Your task to perform on an android device: Open Amazon Image 0: 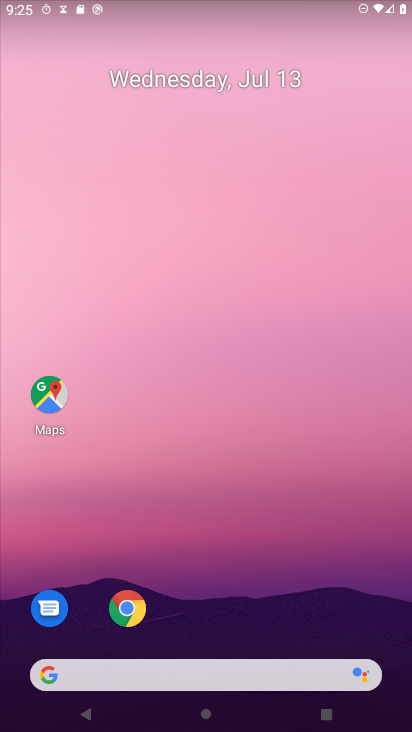
Step 0: drag from (269, 674) to (195, 347)
Your task to perform on an android device: Open Amazon Image 1: 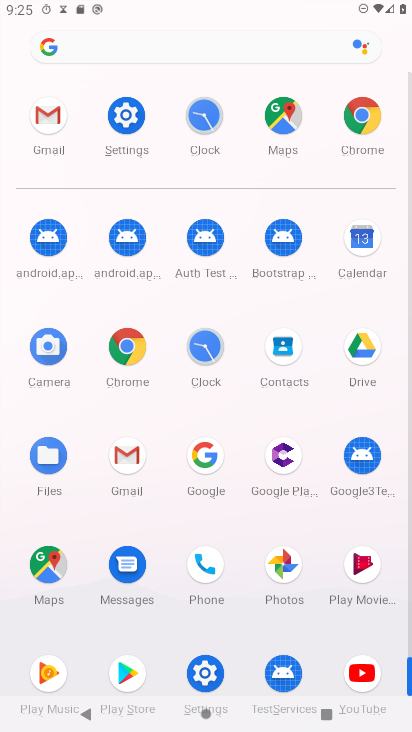
Step 1: click (354, 118)
Your task to perform on an android device: Open Amazon Image 2: 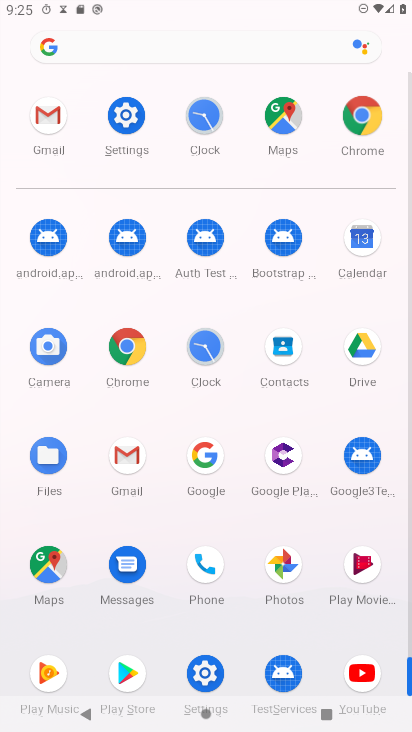
Step 2: click (357, 116)
Your task to perform on an android device: Open Amazon Image 3: 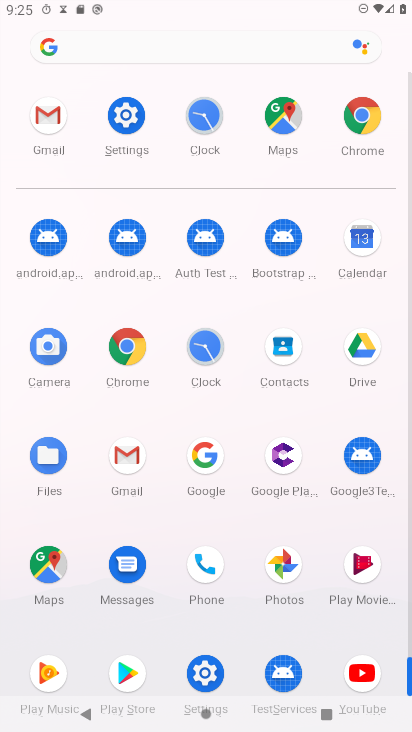
Step 3: click (357, 116)
Your task to perform on an android device: Open Amazon Image 4: 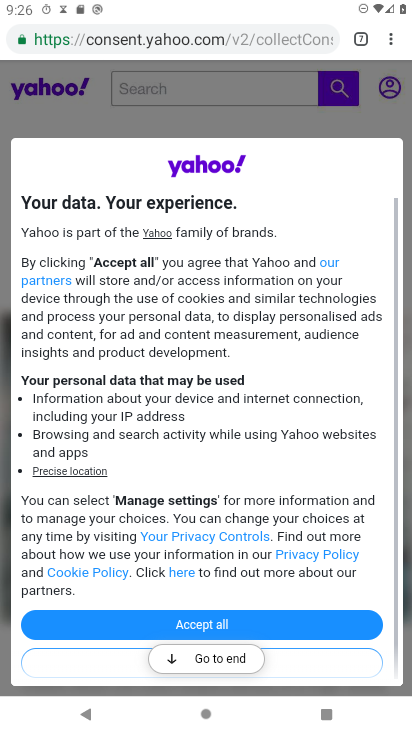
Step 4: drag from (389, 35) to (247, 474)
Your task to perform on an android device: Open Amazon Image 5: 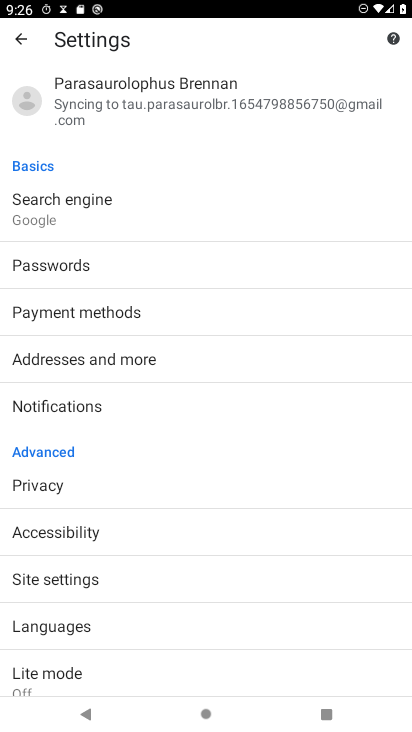
Step 5: click (17, 36)
Your task to perform on an android device: Open Amazon Image 6: 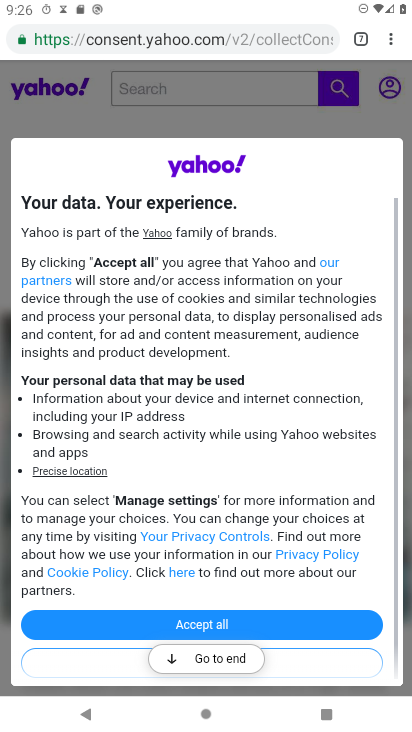
Step 6: press back button
Your task to perform on an android device: Open Amazon Image 7: 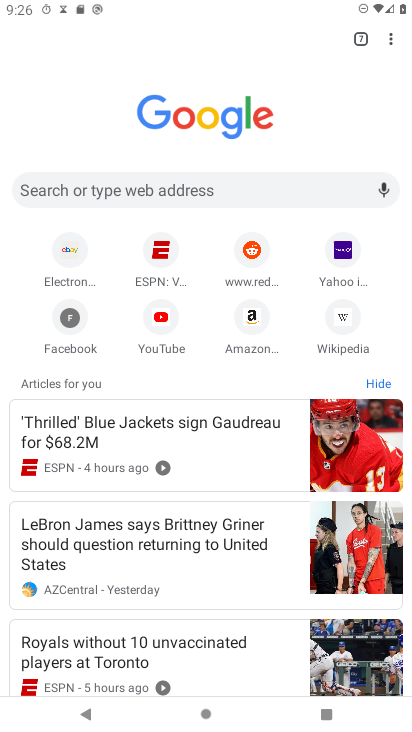
Step 7: click (248, 321)
Your task to perform on an android device: Open Amazon Image 8: 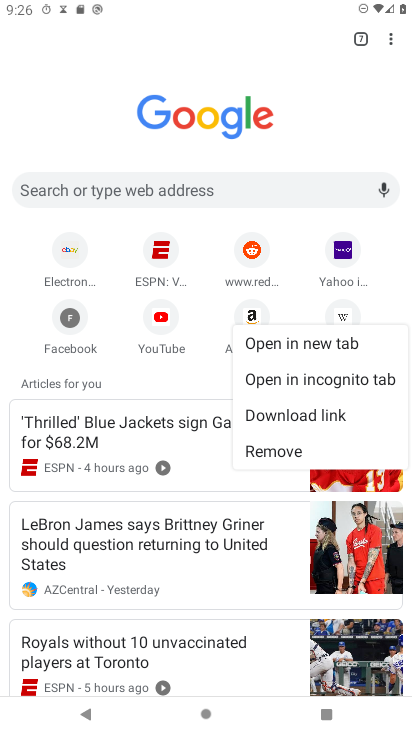
Step 8: click (251, 318)
Your task to perform on an android device: Open Amazon Image 9: 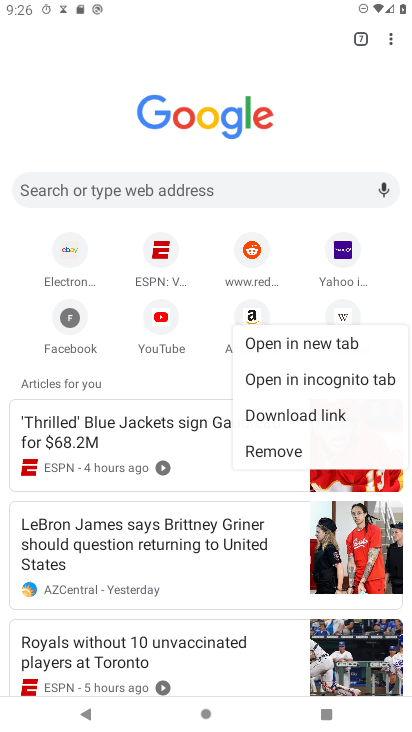
Step 9: click (251, 318)
Your task to perform on an android device: Open Amazon Image 10: 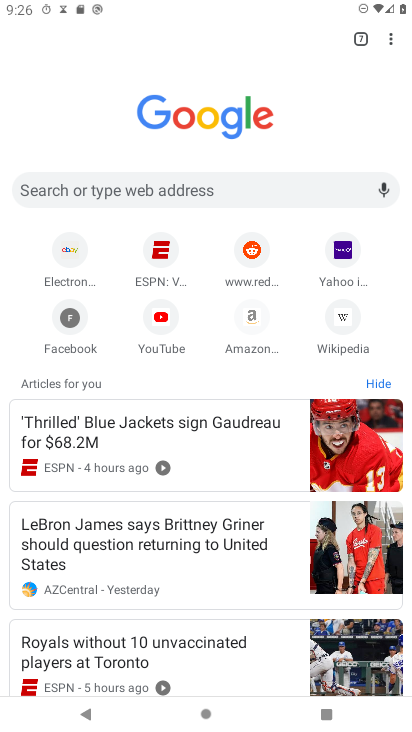
Step 10: click (251, 318)
Your task to perform on an android device: Open Amazon Image 11: 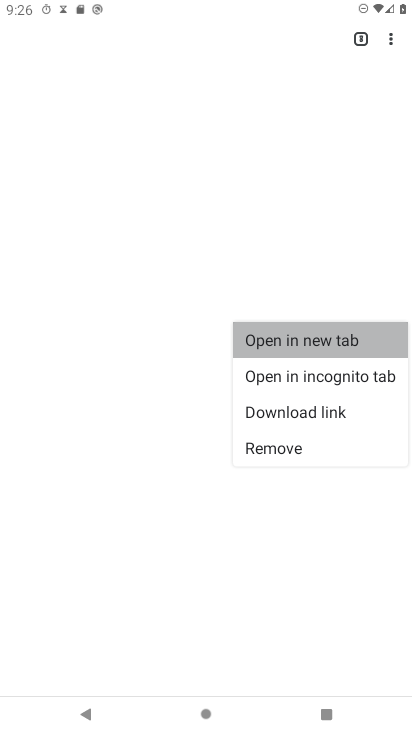
Step 11: click (251, 318)
Your task to perform on an android device: Open Amazon Image 12: 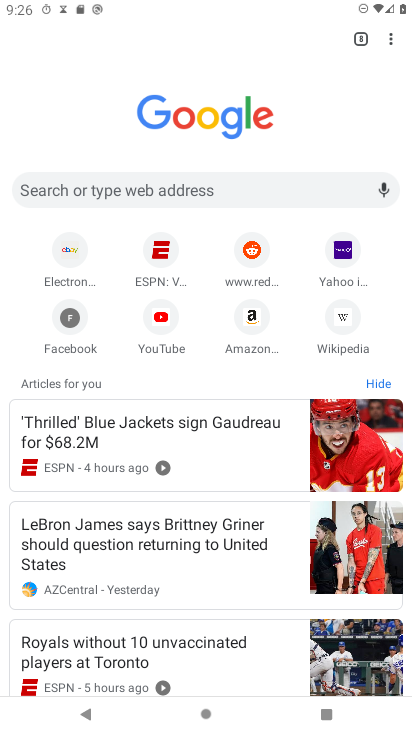
Step 12: click (245, 313)
Your task to perform on an android device: Open Amazon Image 13: 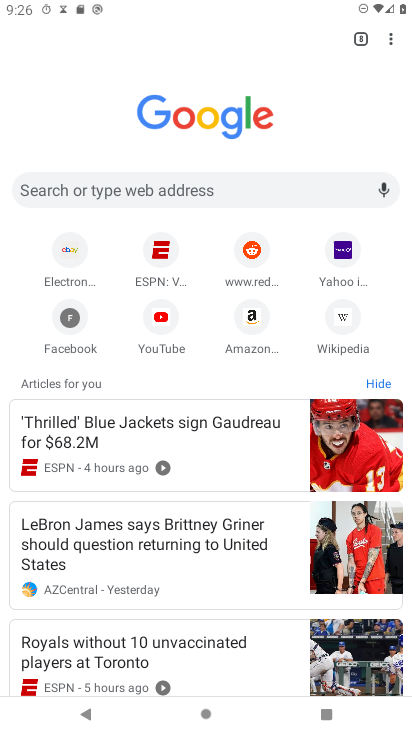
Step 13: click (245, 313)
Your task to perform on an android device: Open Amazon Image 14: 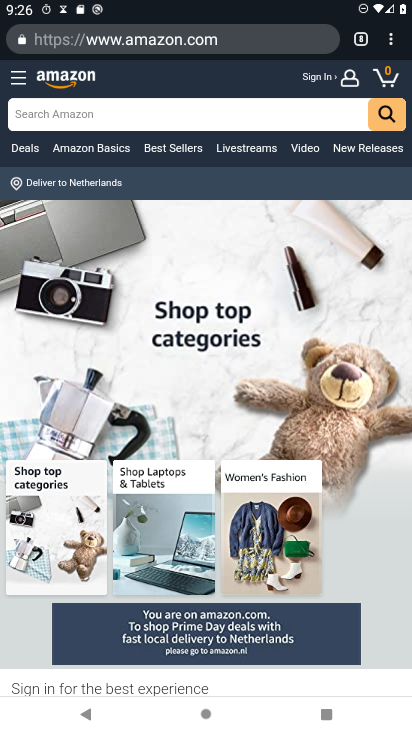
Step 14: task complete